Your task to perform on an android device: Open Reddit.com Image 0: 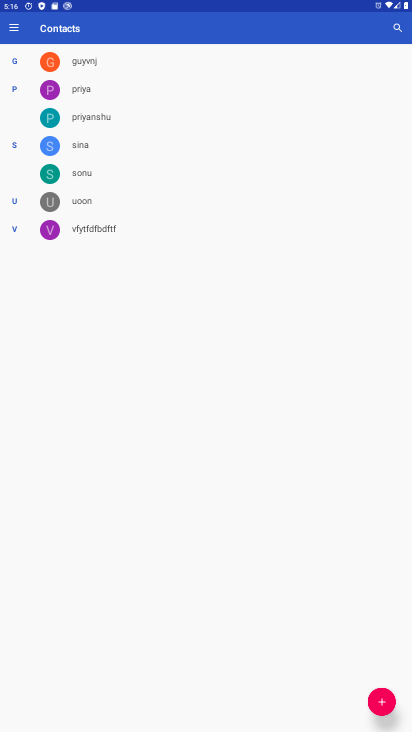
Step 0: press home button
Your task to perform on an android device: Open Reddit.com Image 1: 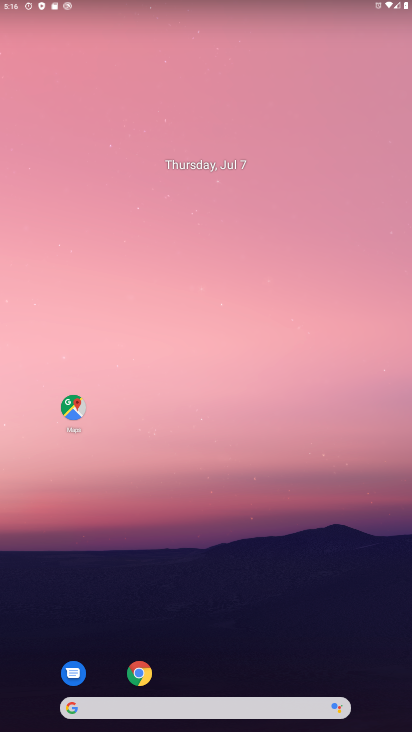
Step 1: drag from (235, 705) to (347, 0)
Your task to perform on an android device: Open Reddit.com Image 2: 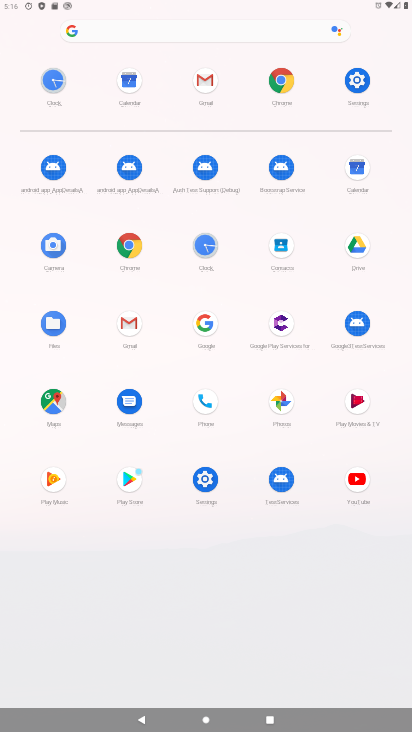
Step 2: click (130, 243)
Your task to perform on an android device: Open Reddit.com Image 3: 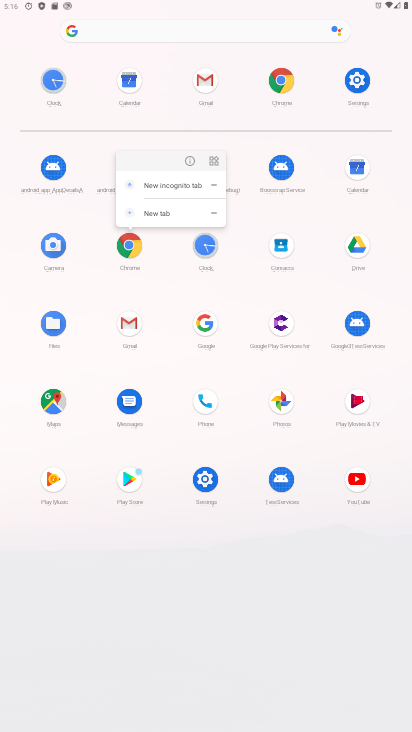
Step 3: click (127, 243)
Your task to perform on an android device: Open Reddit.com Image 4: 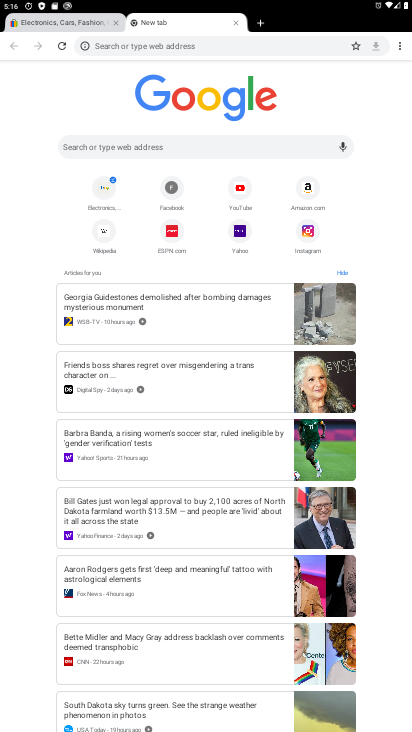
Step 4: click (230, 149)
Your task to perform on an android device: Open Reddit.com Image 5: 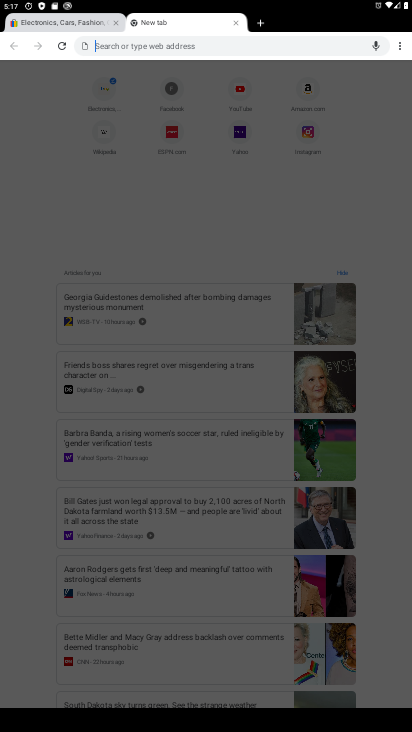
Step 5: type "reddit.com"
Your task to perform on an android device: Open Reddit.com Image 6: 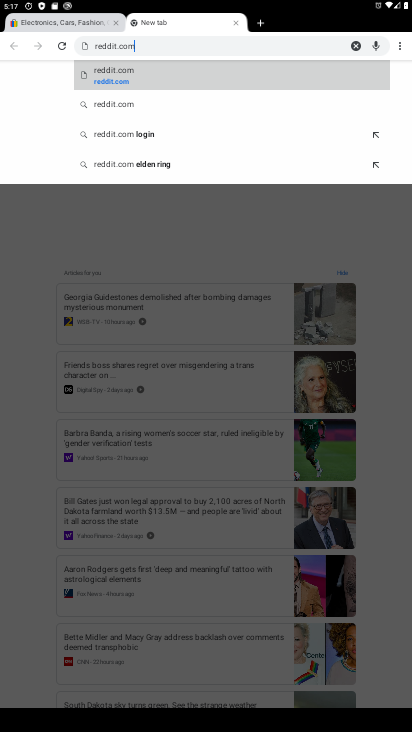
Step 6: click (177, 73)
Your task to perform on an android device: Open Reddit.com Image 7: 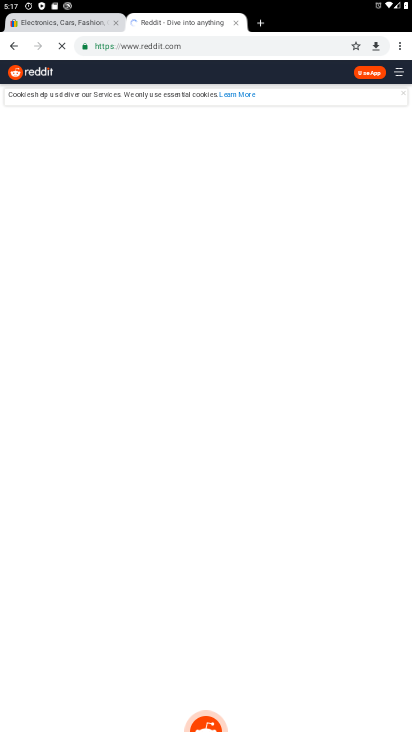
Step 7: task complete